Your task to perform on an android device: turn on javascript in the chrome app Image 0: 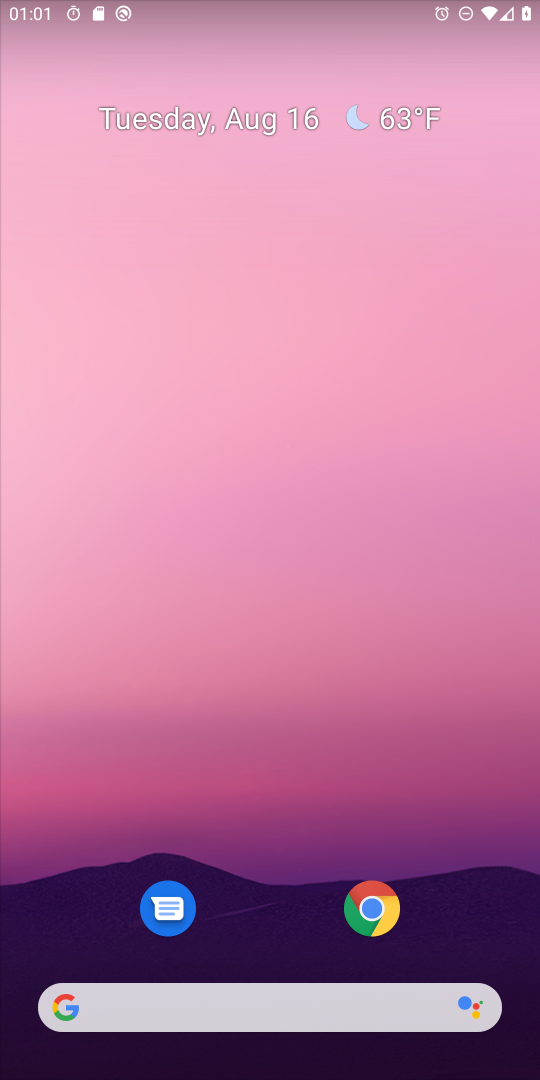
Step 0: click (372, 907)
Your task to perform on an android device: turn on javascript in the chrome app Image 1: 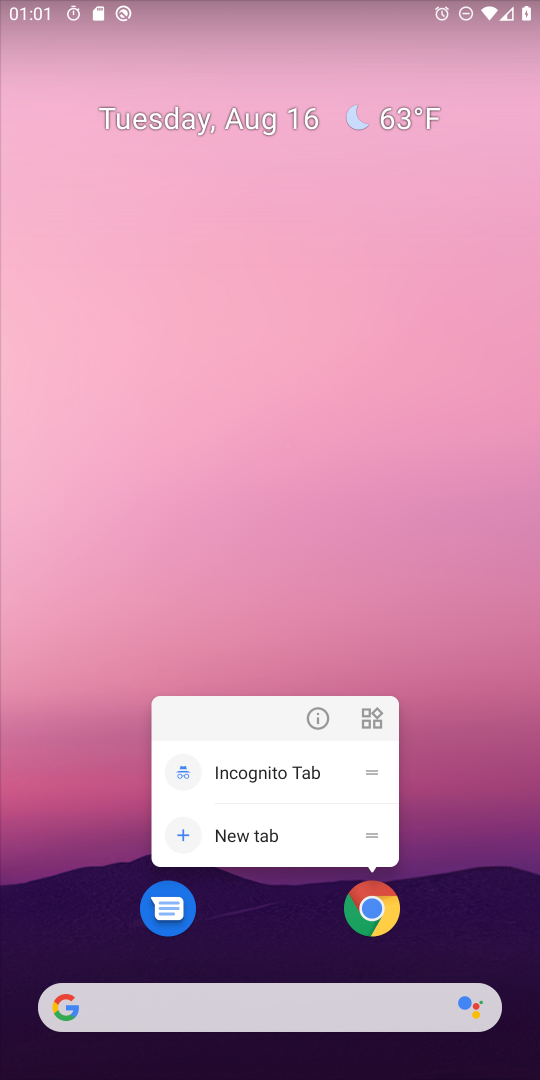
Step 1: click (372, 907)
Your task to perform on an android device: turn on javascript in the chrome app Image 2: 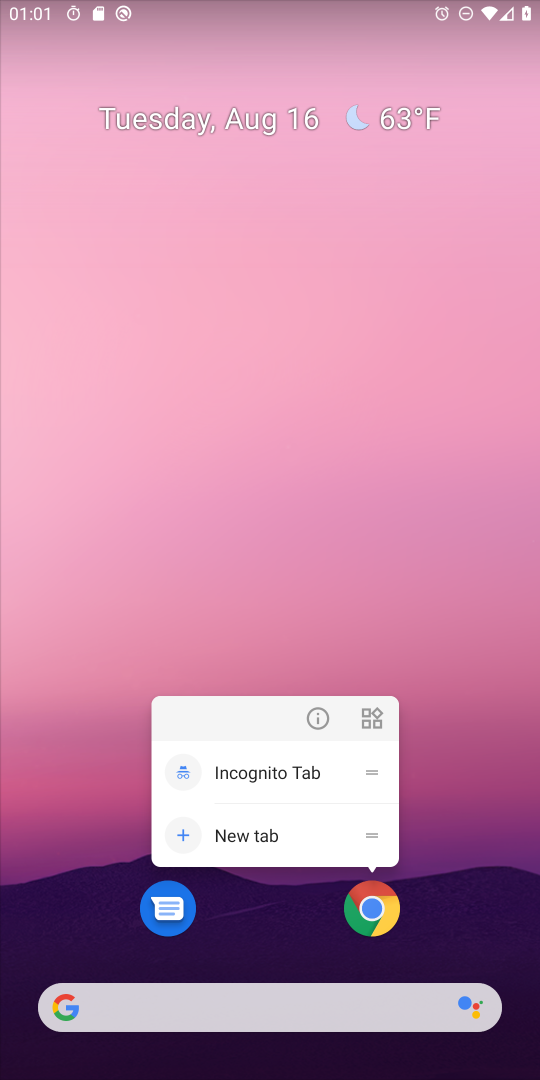
Step 2: click (292, 839)
Your task to perform on an android device: turn on javascript in the chrome app Image 3: 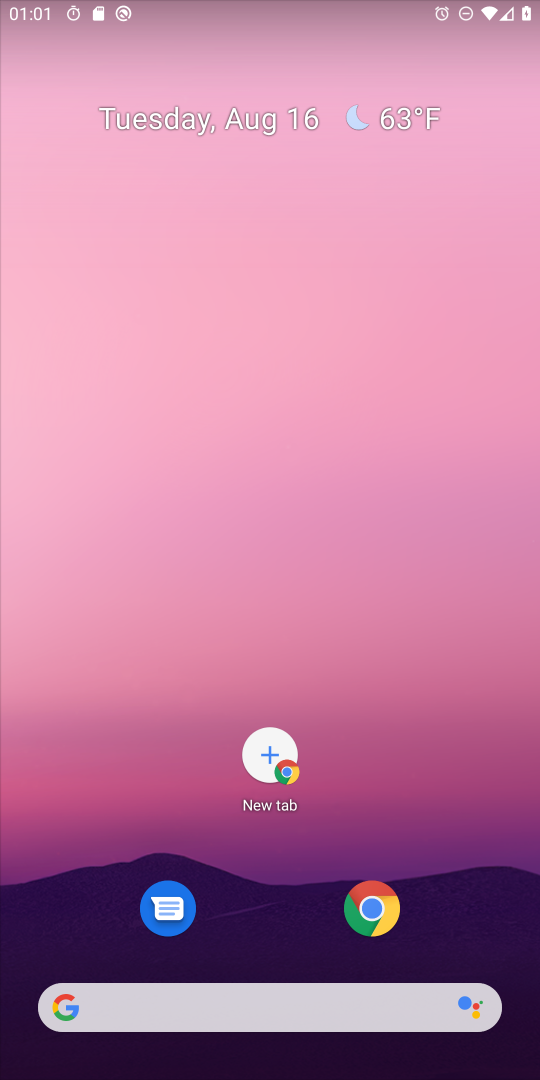
Step 3: click (274, 779)
Your task to perform on an android device: turn on javascript in the chrome app Image 4: 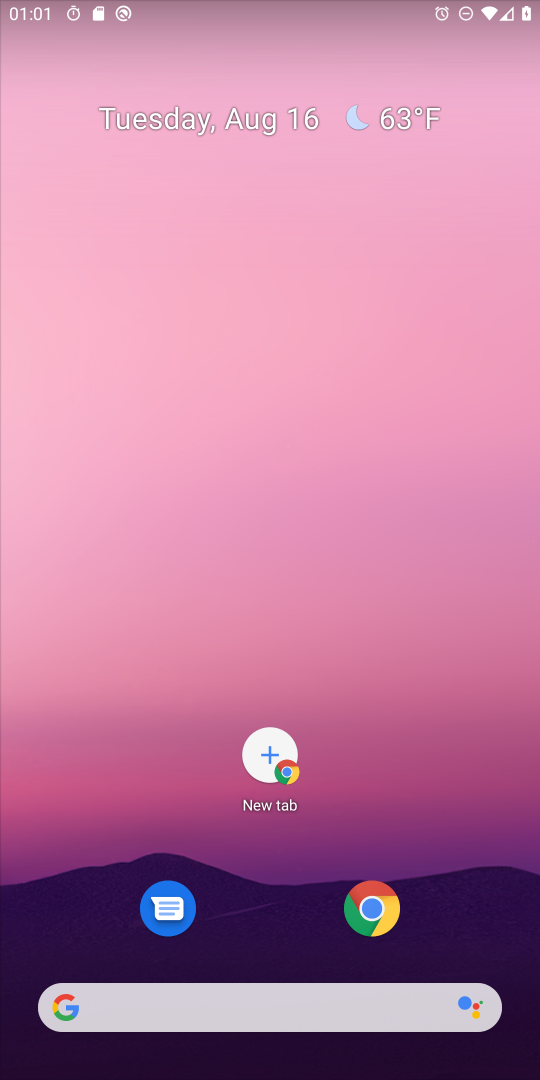
Step 4: click (272, 767)
Your task to perform on an android device: turn on javascript in the chrome app Image 5: 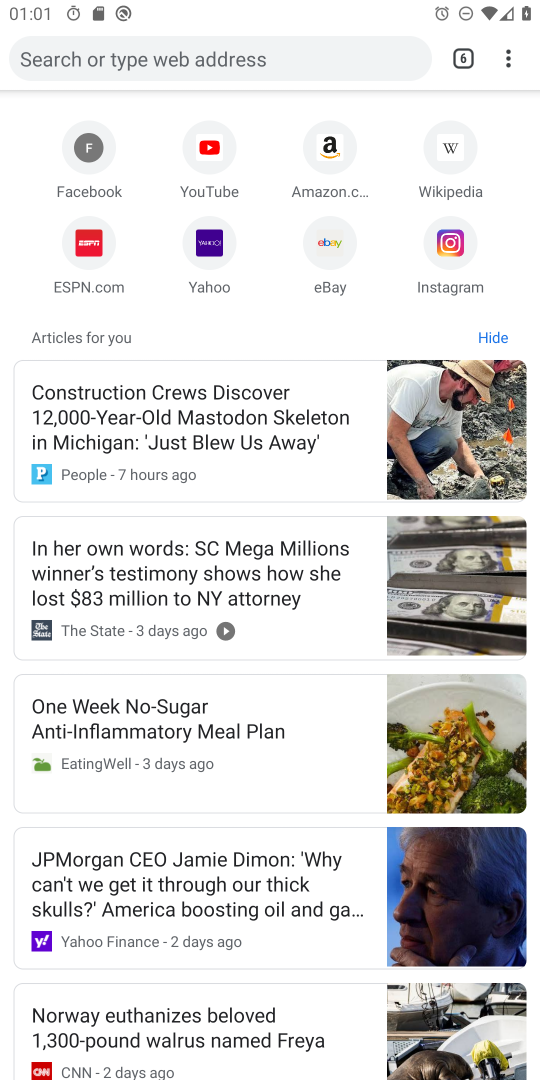
Step 5: click (510, 51)
Your task to perform on an android device: turn on javascript in the chrome app Image 6: 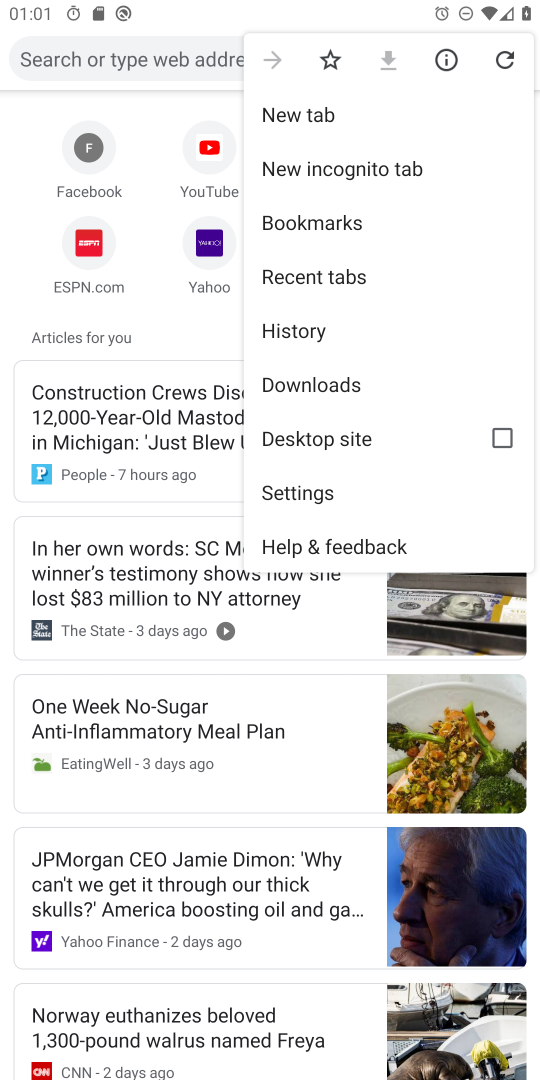
Step 6: click (354, 499)
Your task to perform on an android device: turn on javascript in the chrome app Image 7: 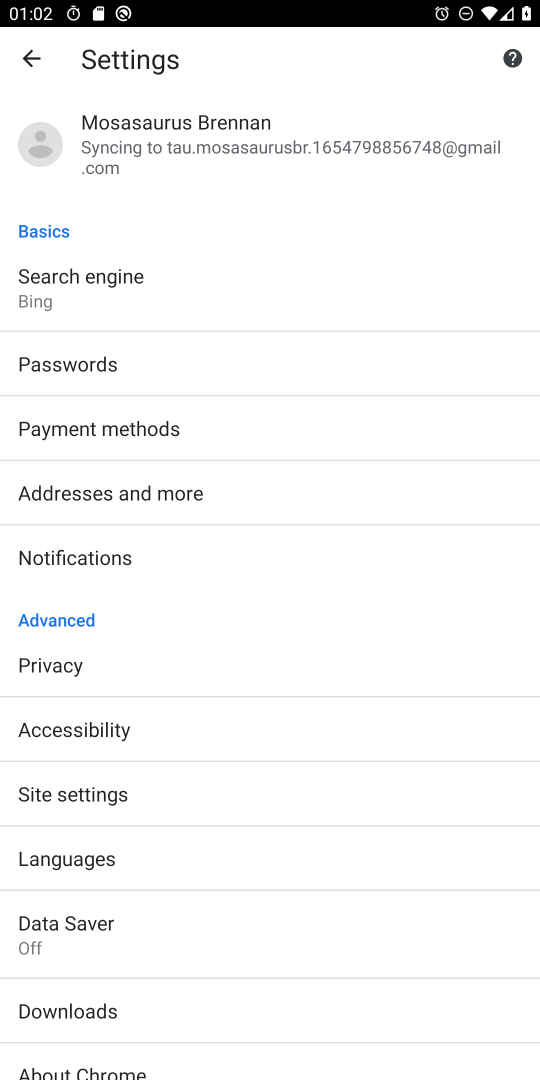
Step 7: click (140, 804)
Your task to perform on an android device: turn on javascript in the chrome app Image 8: 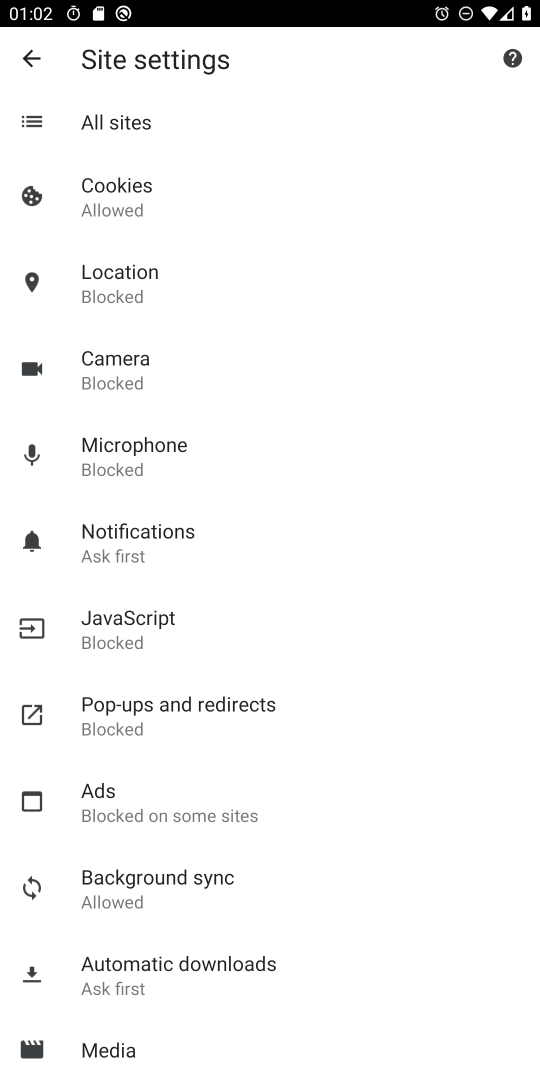
Step 8: click (182, 652)
Your task to perform on an android device: turn on javascript in the chrome app Image 9: 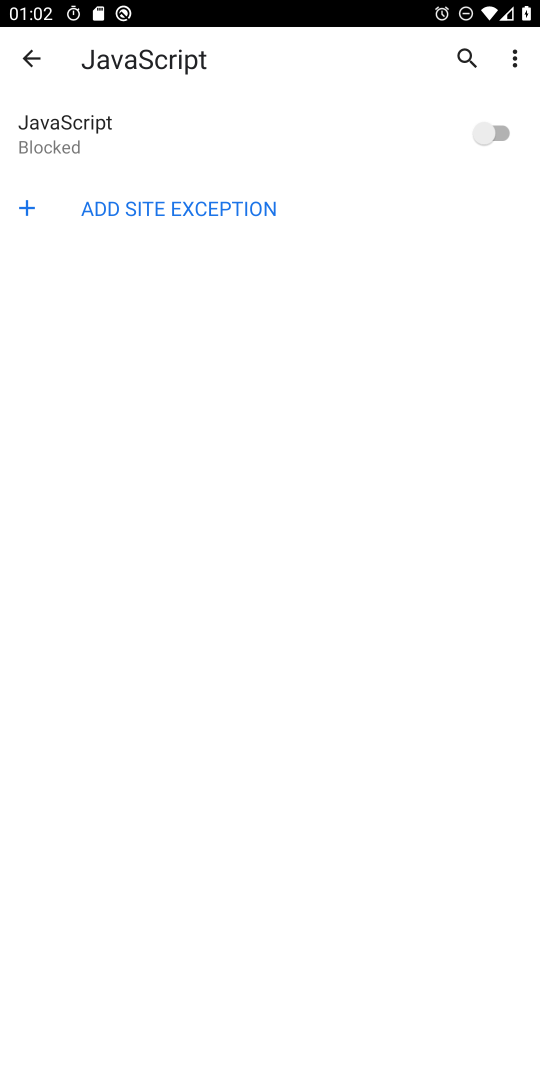
Step 9: click (499, 141)
Your task to perform on an android device: turn on javascript in the chrome app Image 10: 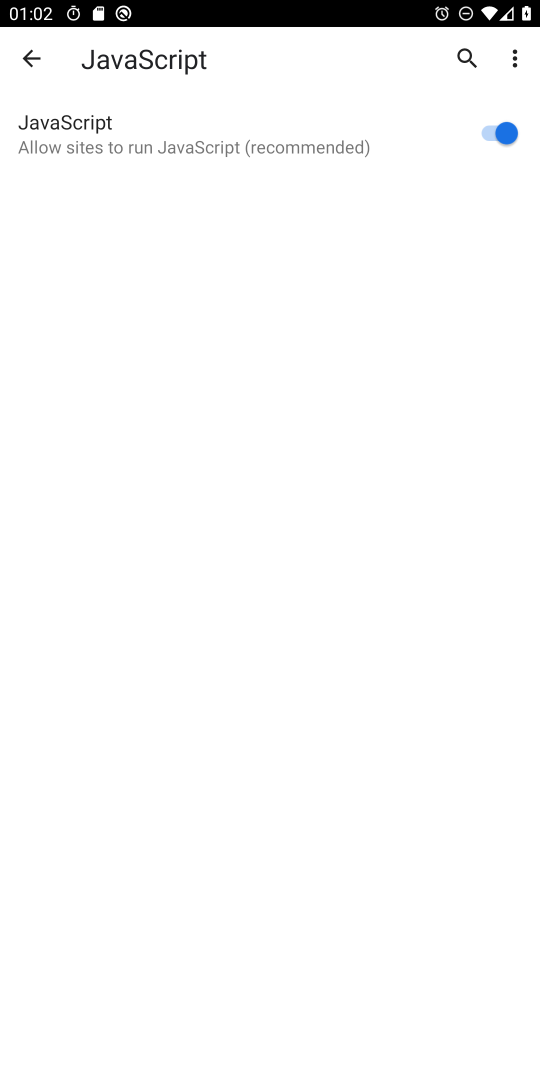
Step 10: task complete